Your task to perform on an android device: What's on the menu at Papa Murphy's? Image 0: 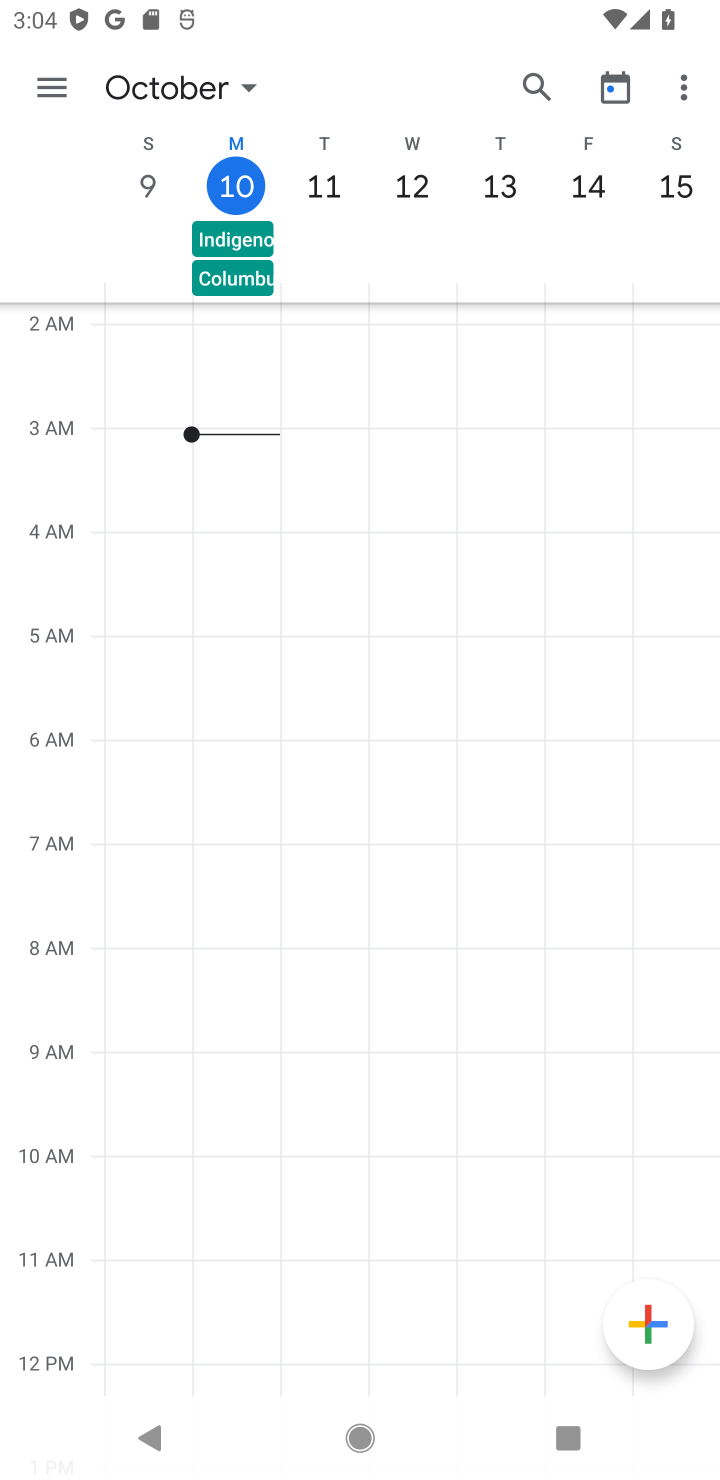
Step 0: press home button
Your task to perform on an android device: What's on the menu at Papa Murphy's? Image 1: 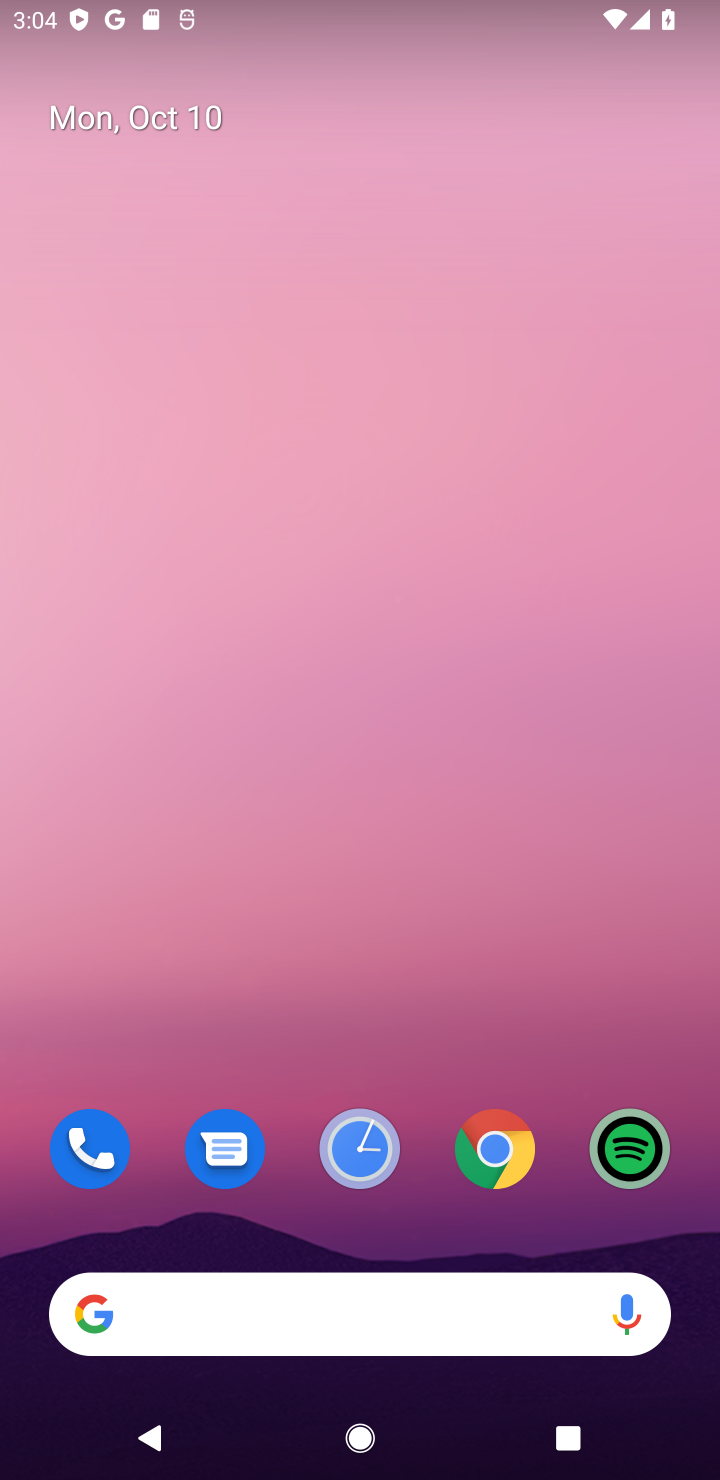
Step 1: click (286, 1328)
Your task to perform on an android device: What's on the menu at Papa Murphy's? Image 2: 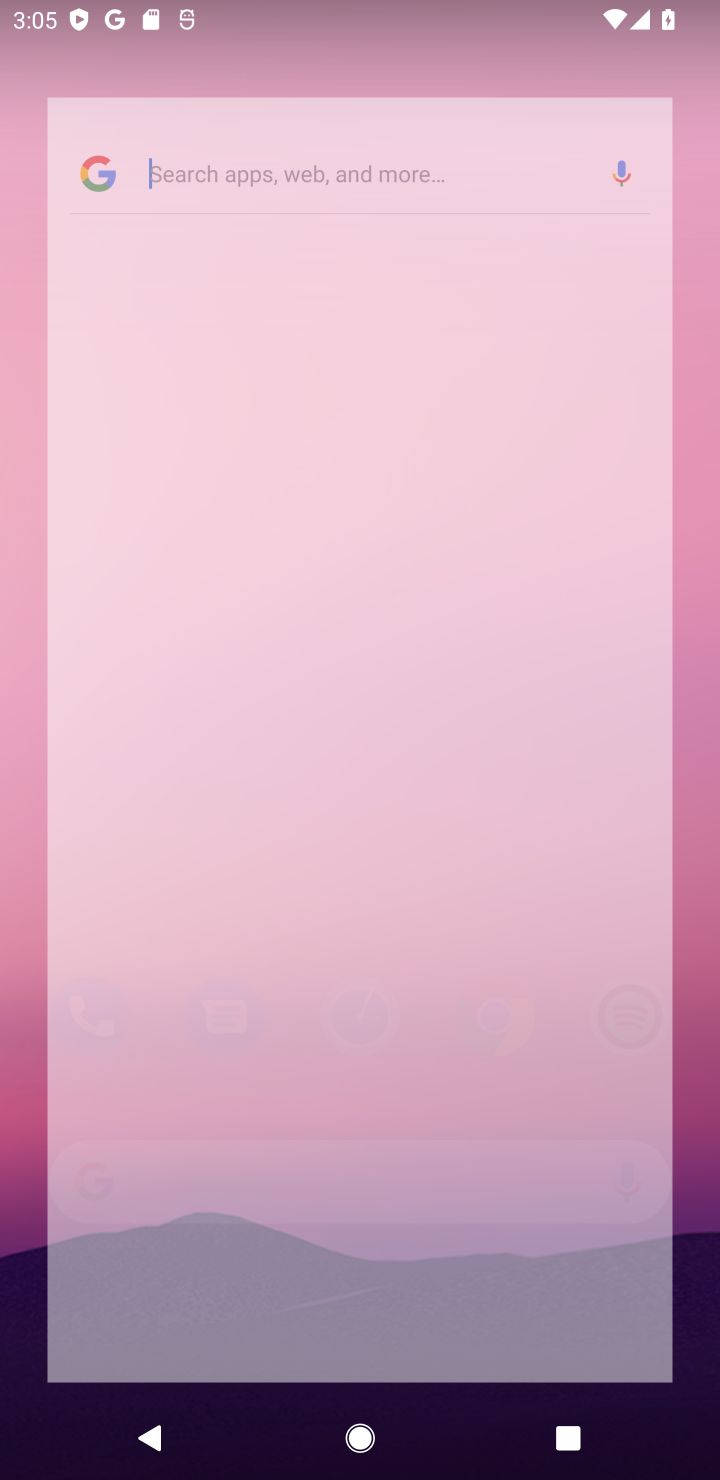
Step 2: type "the menu at Papa Murphy's"
Your task to perform on an android device: What's on the menu at Papa Murphy's? Image 3: 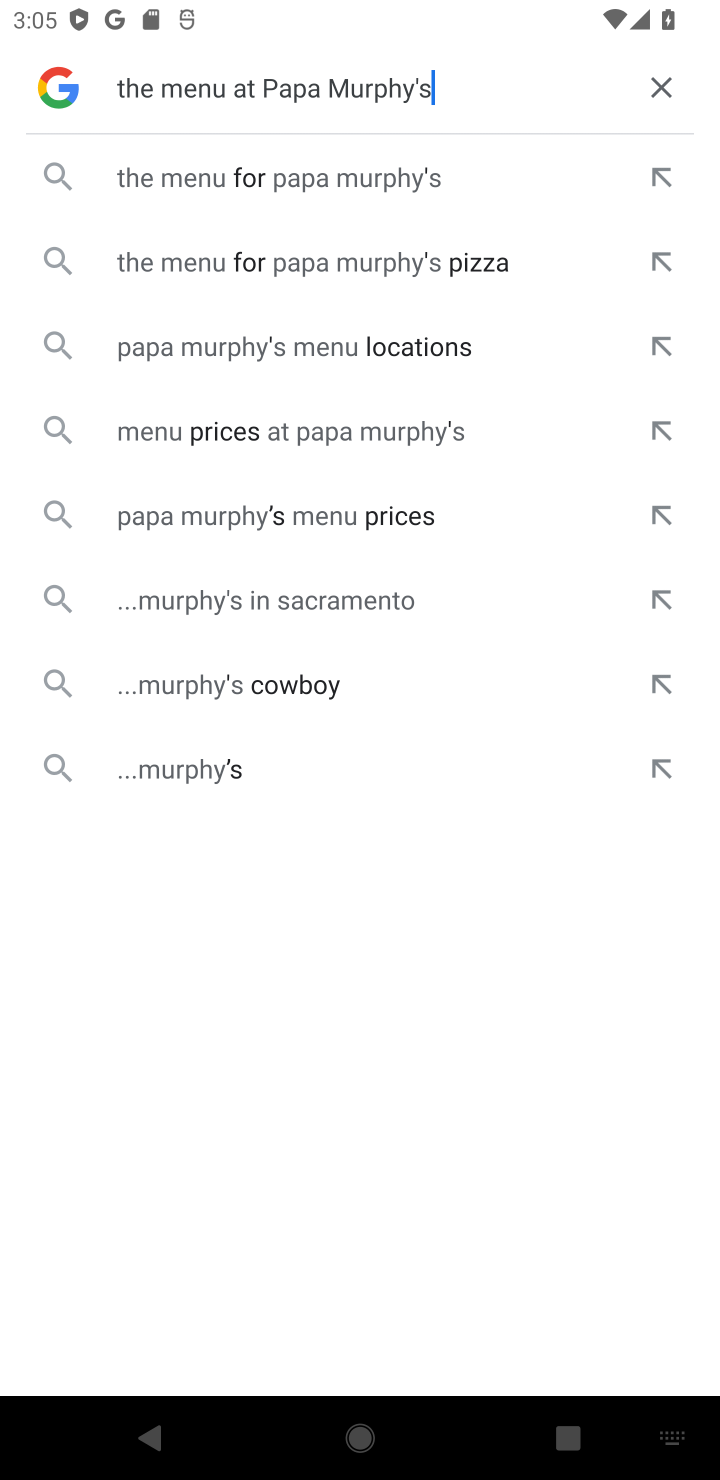
Step 3: click (272, 199)
Your task to perform on an android device: What's on the menu at Papa Murphy's? Image 4: 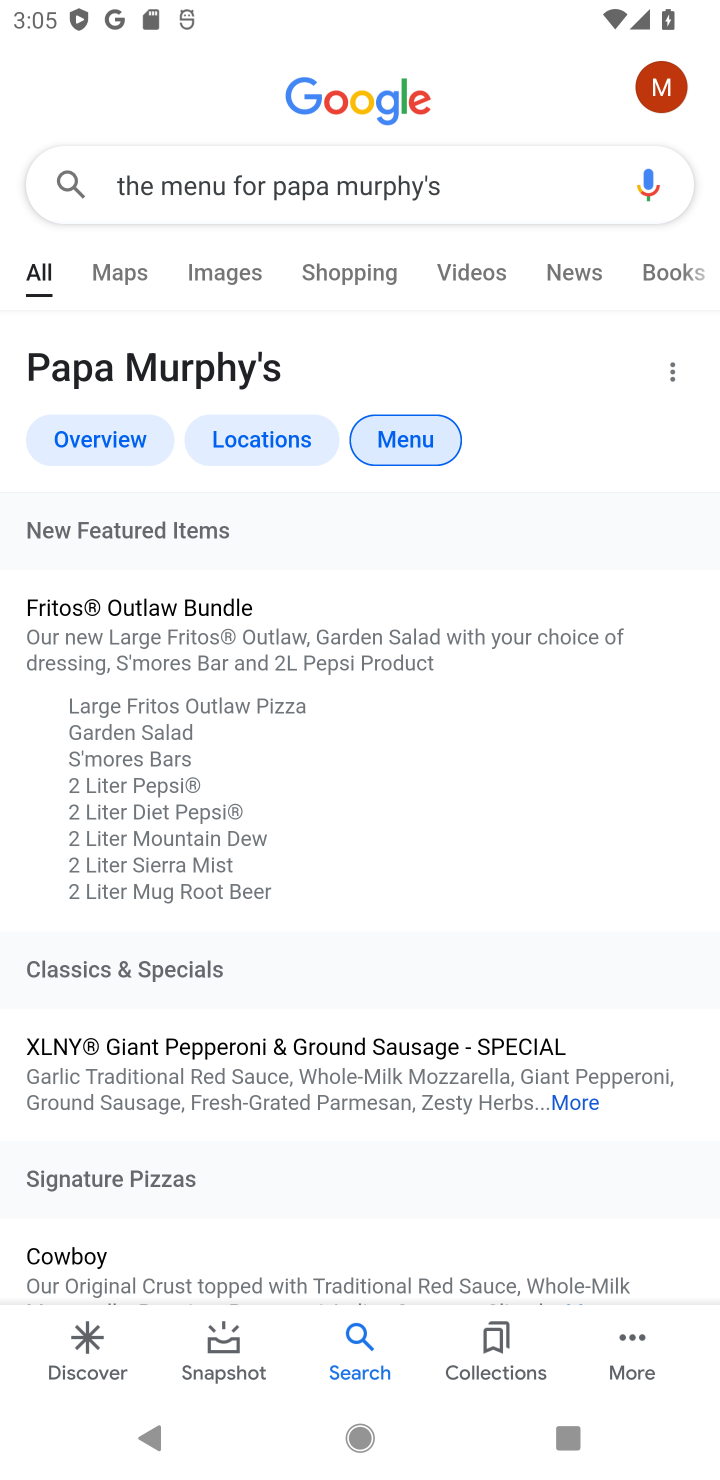
Step 4: task complete